Your task to perform on an android device: Go to Yahoo.com Image 0: 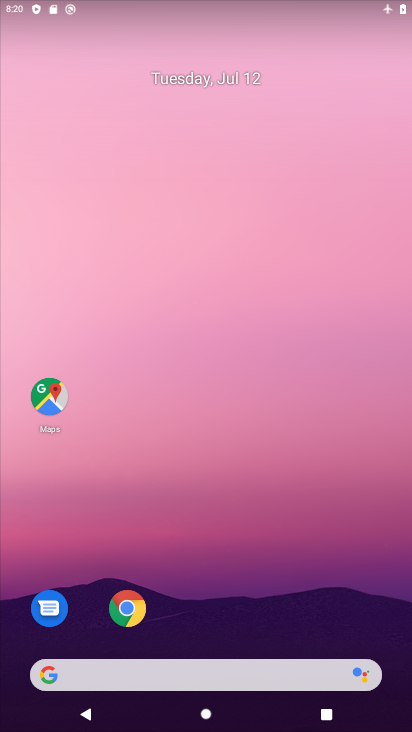
Step 0: click (128, 616)
Your task to perform on an android device: Go to Yahoo.com Image 1: 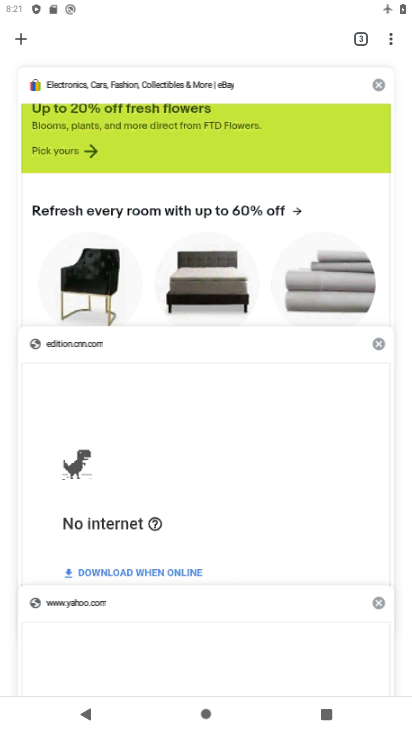
Step 1: click (19, 39)
Your task to perform on an android device: Go to Yahoo.com Image 2: 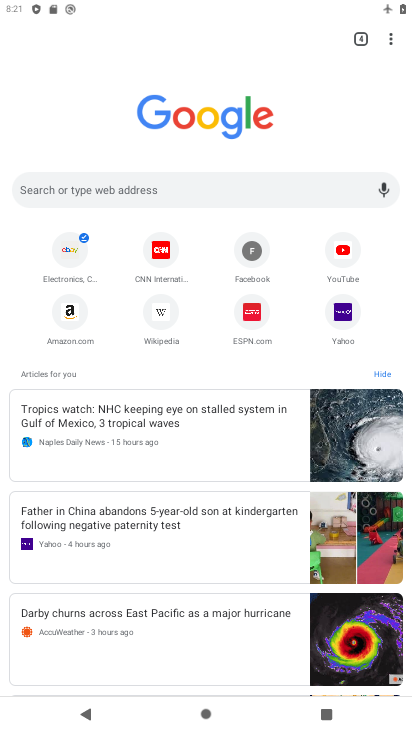
Step 2: click (350, 321)
Your task to perform on an android device: Go to Yahoo.com Image 3: 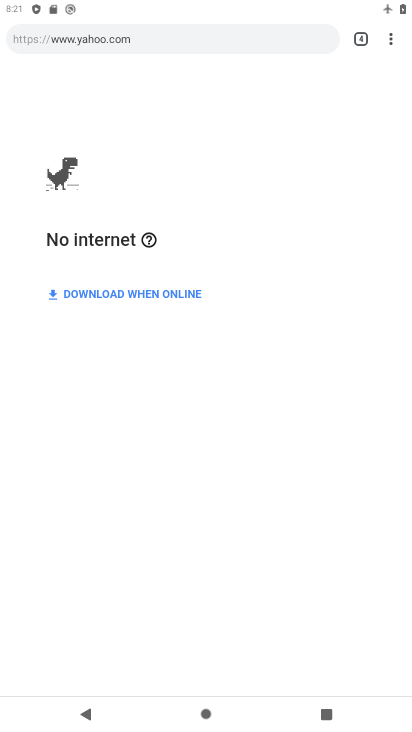
Step 3: task complete